Your task to perform on an android device: What's the weather today? Image 0: 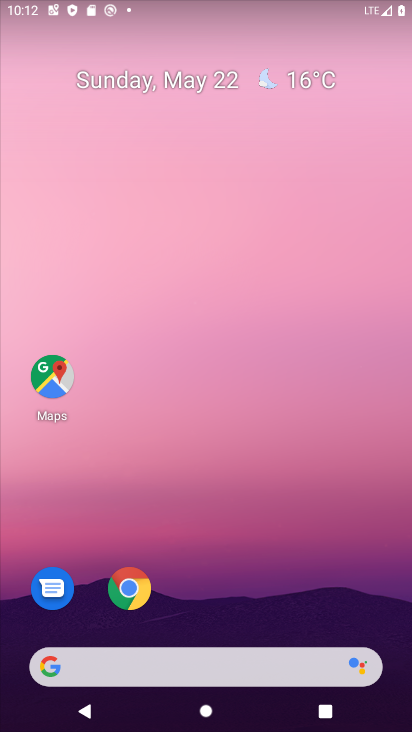
Step 0: drag from (237, 538) to (237, 117)
Your task to perform on an android device: What's the weather today? Image 1: 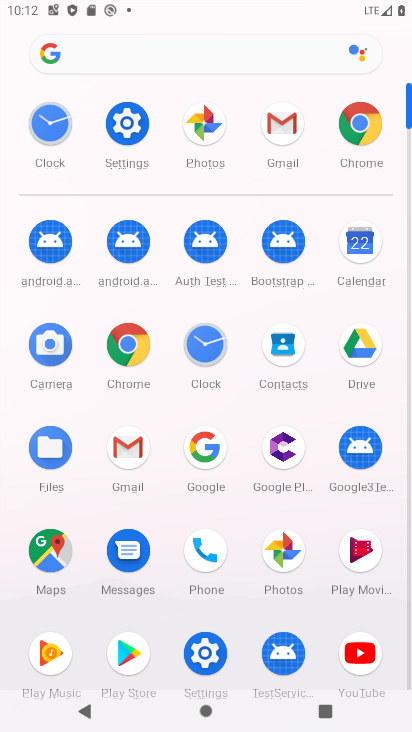
Step 1: click (204, 446)
Your task to perform on an android device: What's the weather today? Image 2: 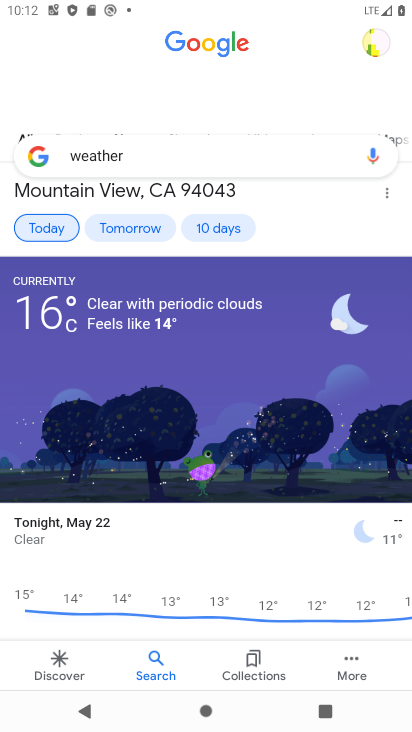
Step 2: task complete